Your task to perform on an android device: Clear the shopping cart on bestbuy. Add macbook air to the cart on bestbuy, then select checkout. Image 0: 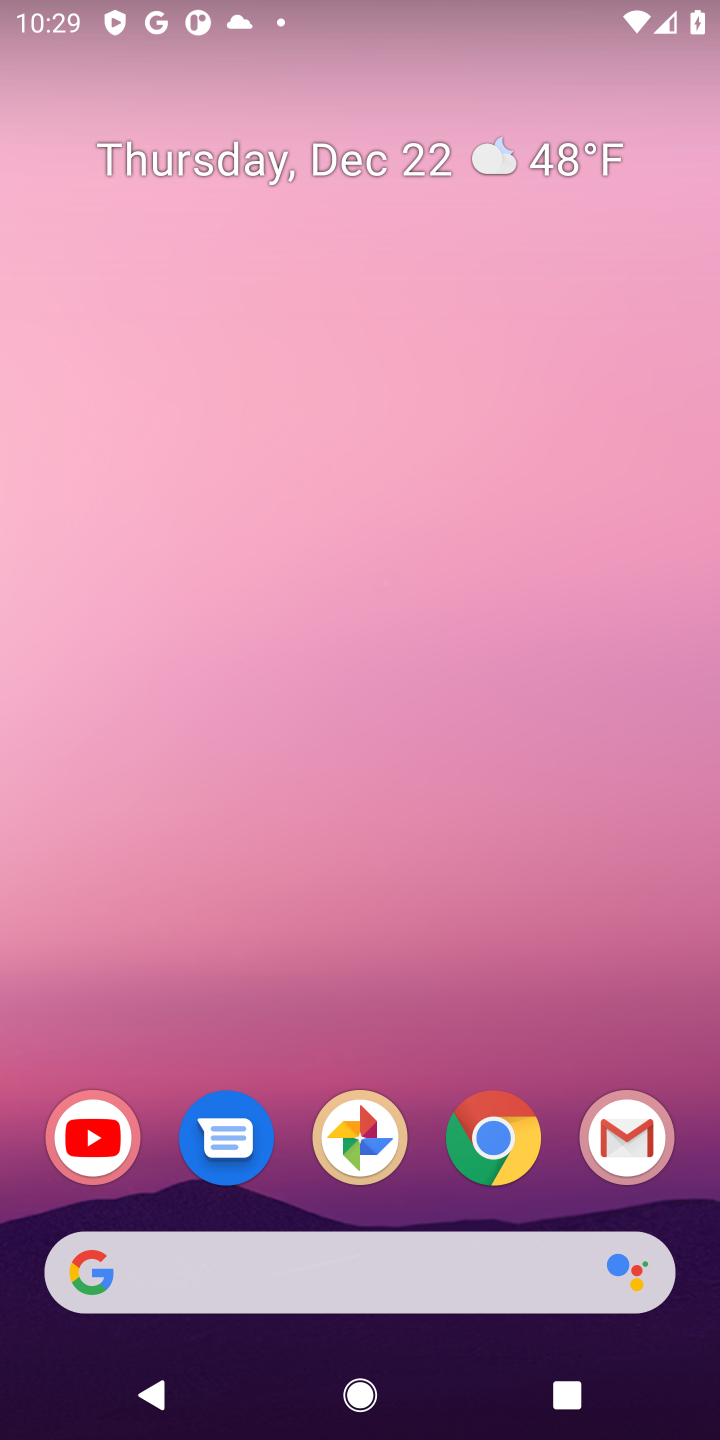
Step 0: click (477, 1119)
Your task to perform on an android device: Clear the shopping cart on bestbuy. Add macbook air to the cart on bestbuy, then select checkout. Image 1: 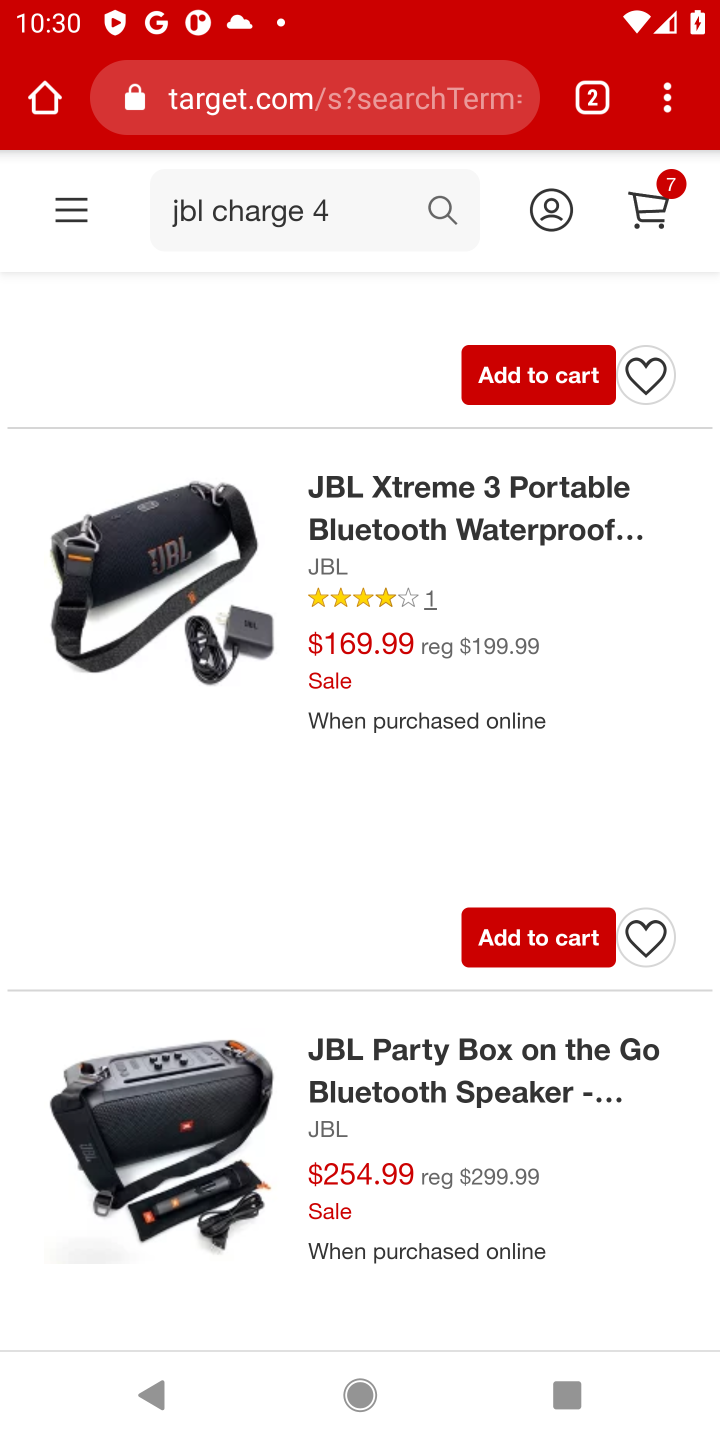
Step 1: click (329, 74)
Your task to perform on an android device: Clear the shopping cart on bestbuy. Add macbook air to the cart on bestbuy, then select checkout. Image 2: 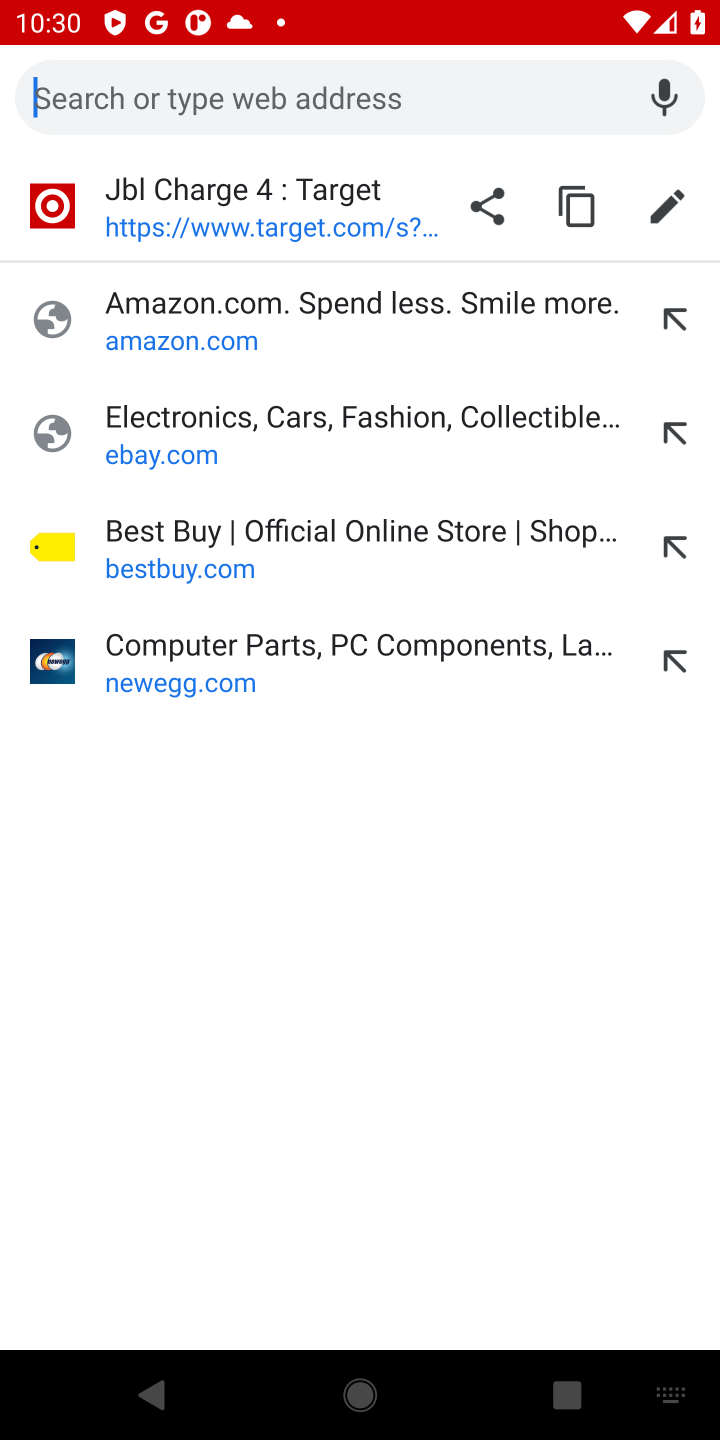
Step 2: press enter
Your task to perform on an android device: Clear the shopping cart on bestbuy. Add macbook air to the cart on bestbuy, then select checkout. Image 3: 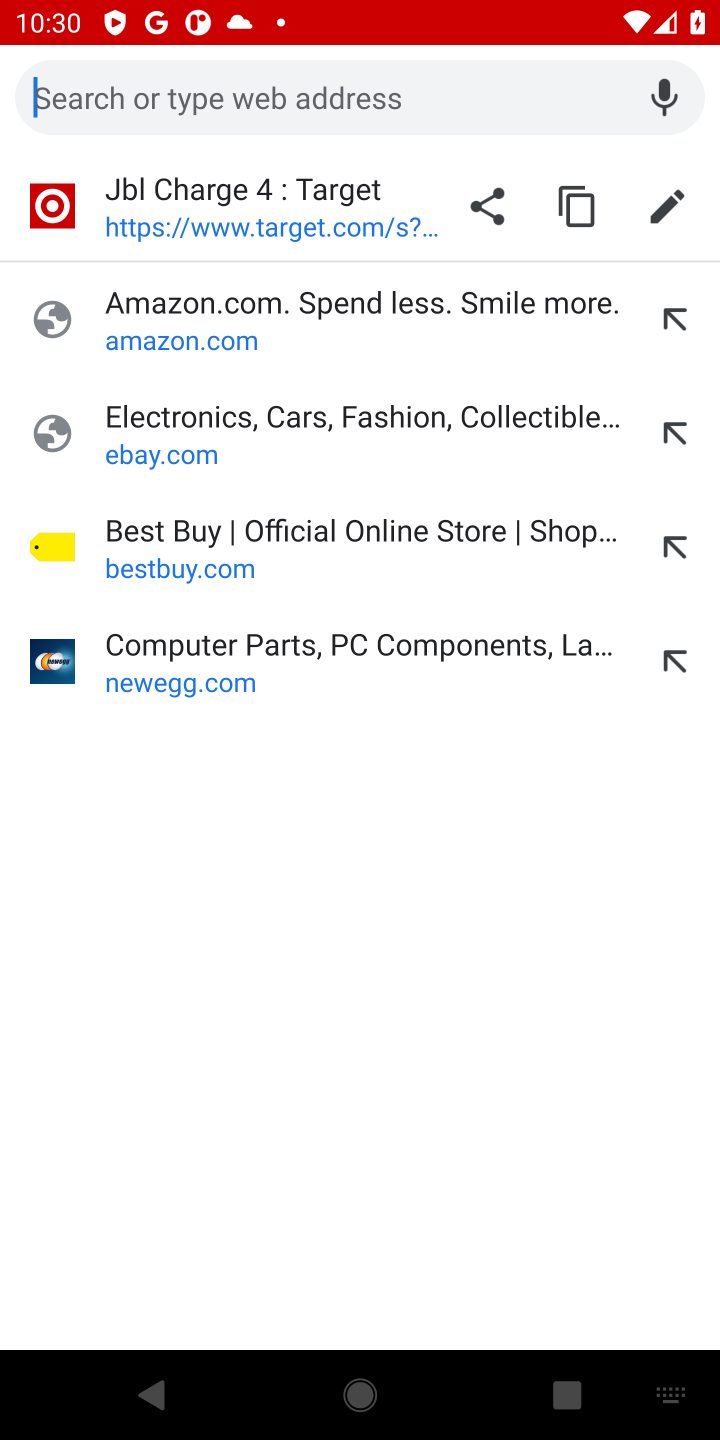
Step 3: type "bestbuy"
Your task to perform on an android device: Clear the shopping cart on bestbuy. Add macbook air to the cart on bestbuy, then select checkout. Image 4: 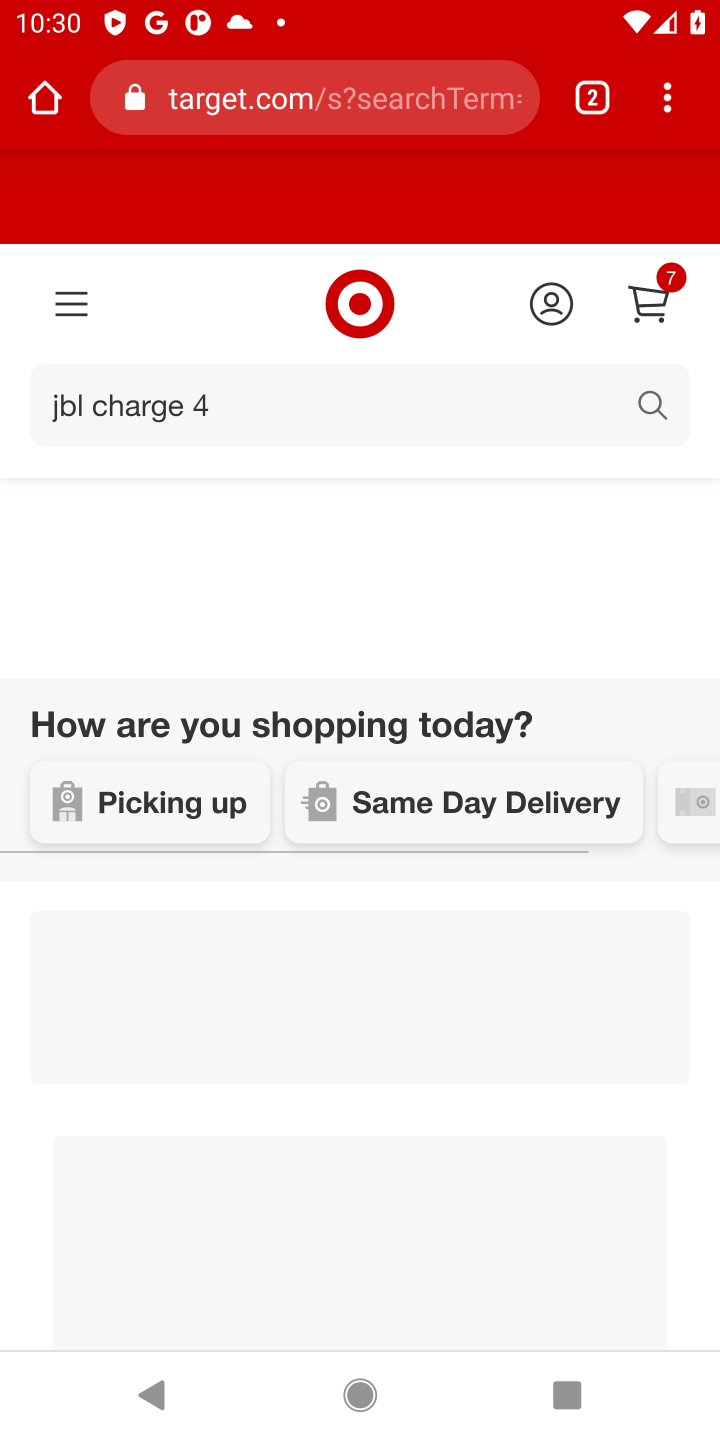
Step 4: click (47, 97)
Your task to perform on an android device: Clear the shopping cart on bestbuy. Add macbook air to the cart on bestbuy, then select checkout. Image 5: 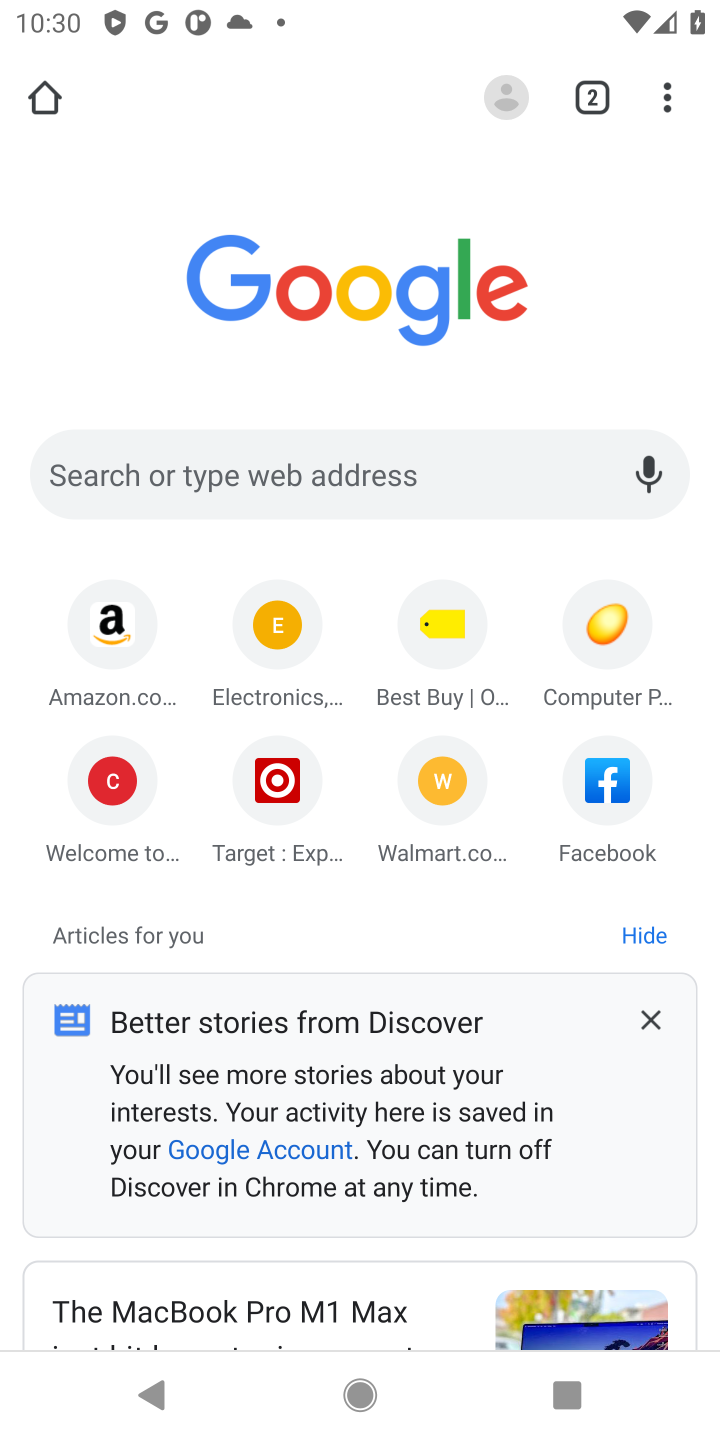
Step 5: click (322, 478)
Your task to perform on an android device: Clear the shopping cart on bestbuy. Add macbook air to the cart on bestbuy, then select checkout. Image 6: 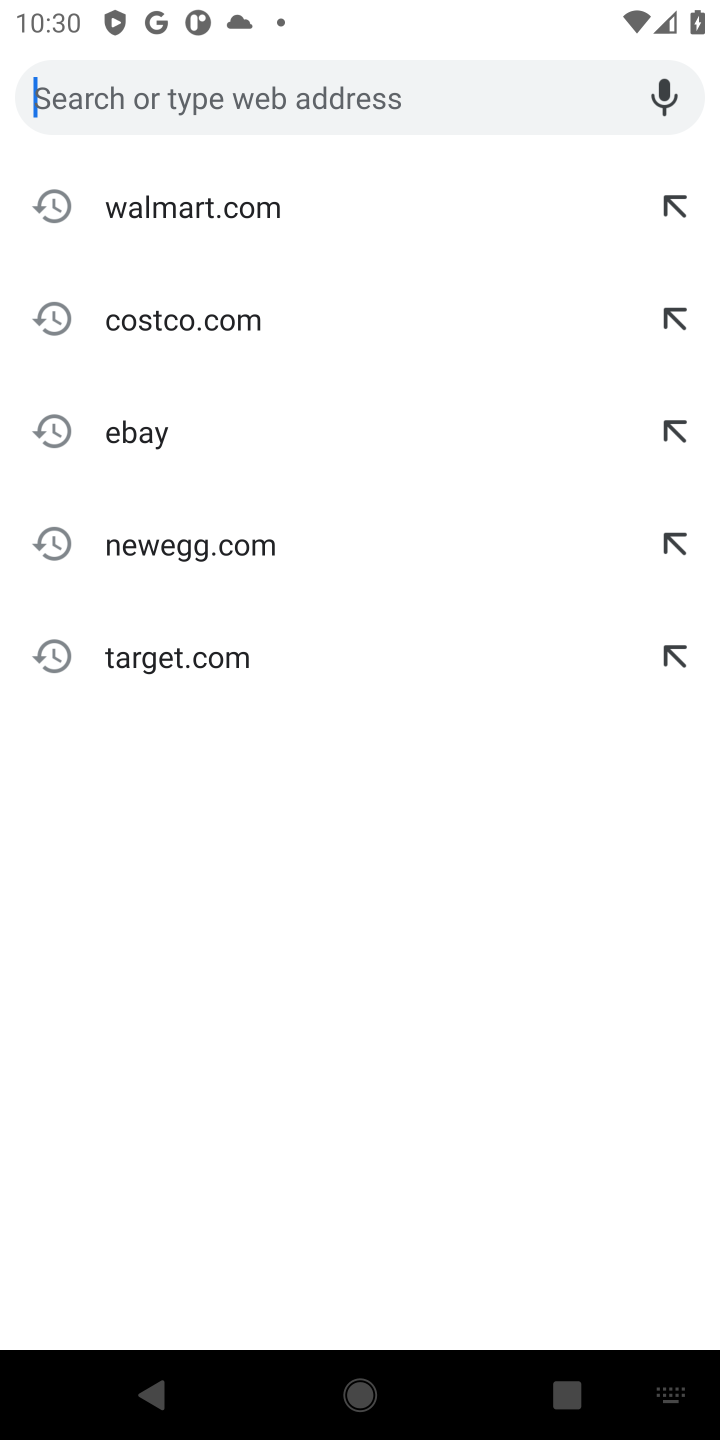
Step 6: press enter
Your task to perform on an android device: Clear the shopping cart on bestbuy. Add macbook air to the cart on bestbuy, then select checkout. Image 7: 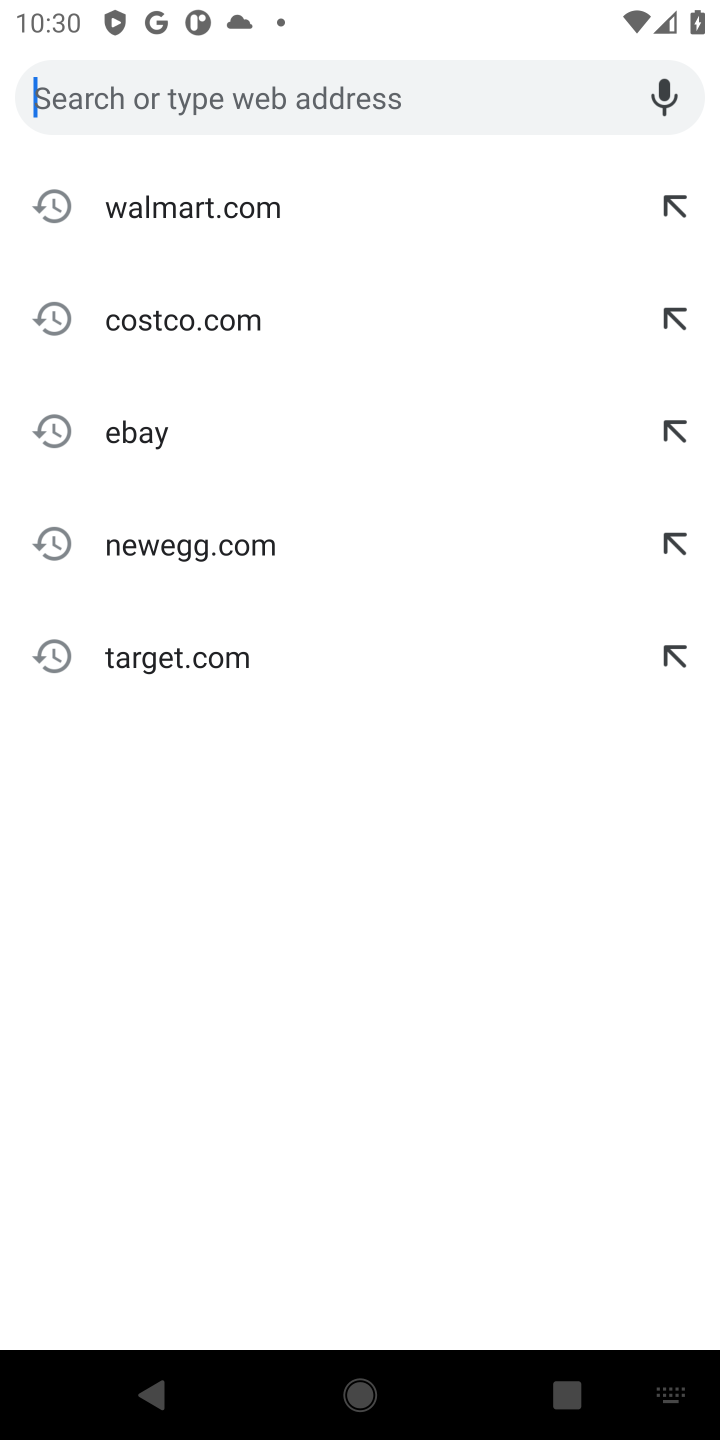
Step 7: type "bestbuy"
Your task to perform on an android device: Clear the shopping cart on bestbuy. Add macbook air to the cart on bestbuy, then select checkout. Image 8: 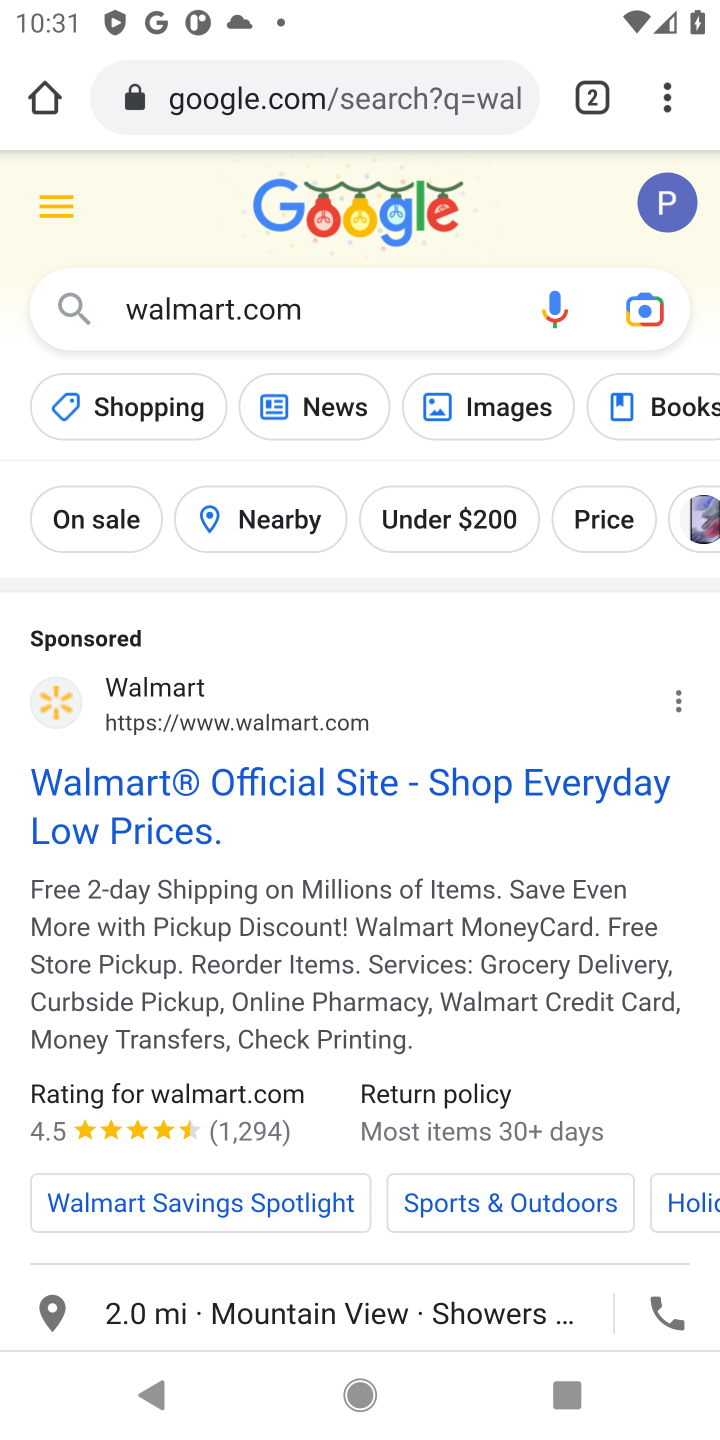
Step 8: click (237, 90)
Your task to perform on an android device: Clear the shopping cart on bestbuy. Add macbook air to the cart on bestbuy, then select checkout. Image 9: 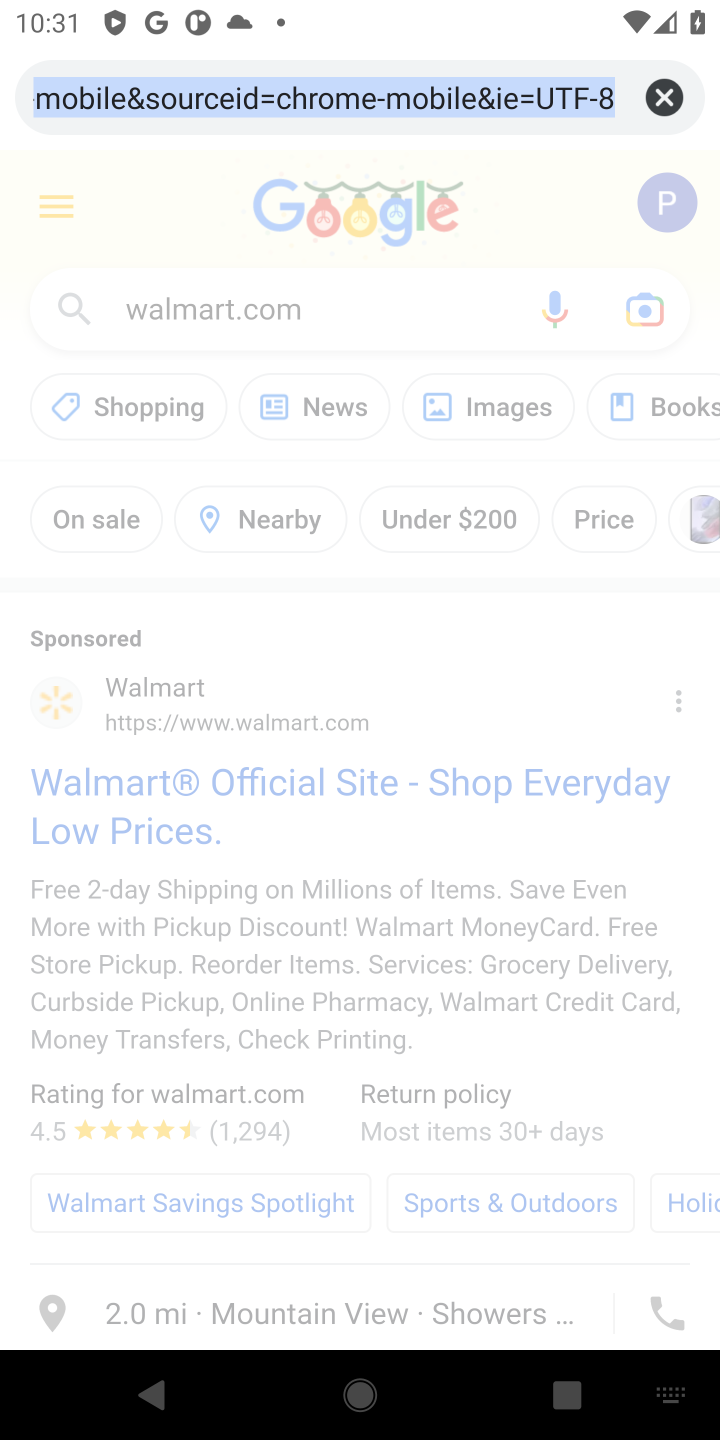
Step 9: press enter
Your task to perform on an android device: Clear the shopping cart on bestbuy. Add macbook air to the cart on bestbuy, then select checkout. Image 10: 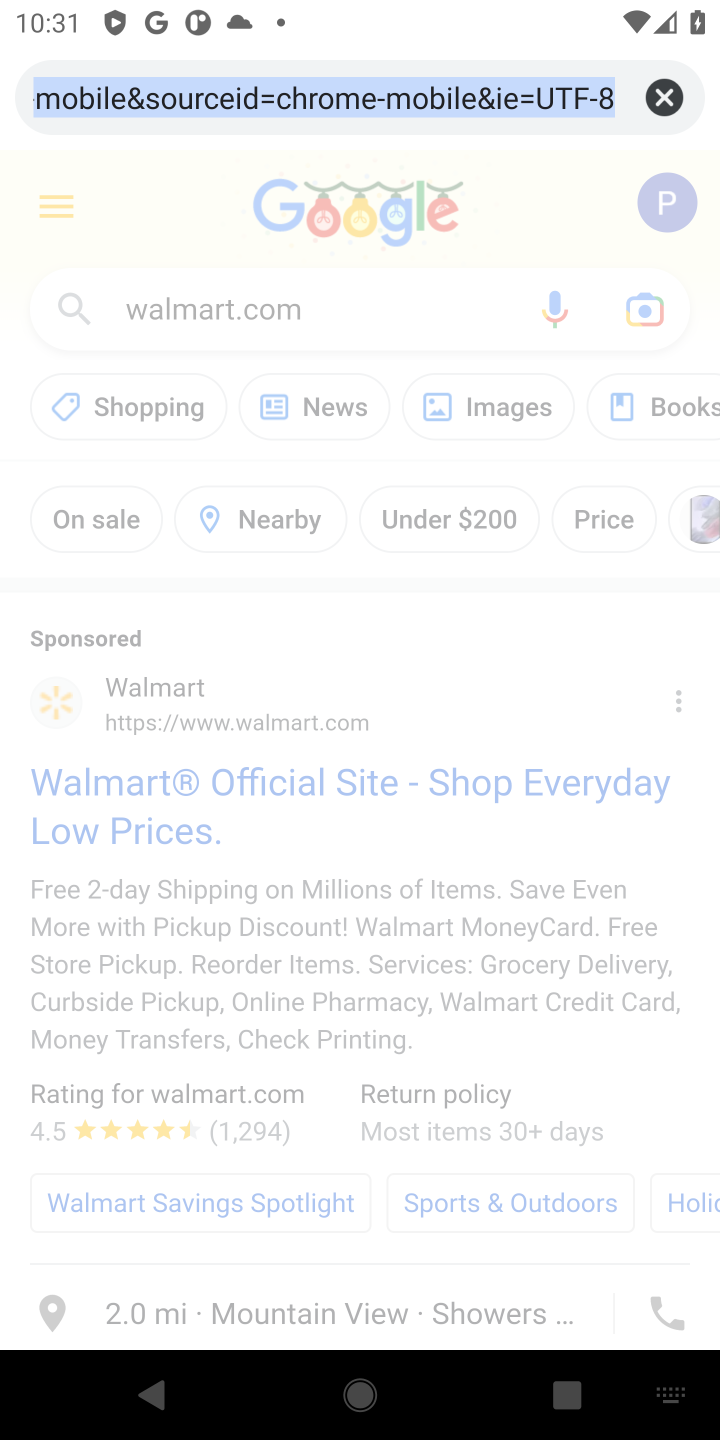
Step 10: type "bestbuy"
Your task to perform on an android device: Clear the shopping cart on bestbuy. Add macbook air to the cart on bestbuy, then select checkout. Image 11: 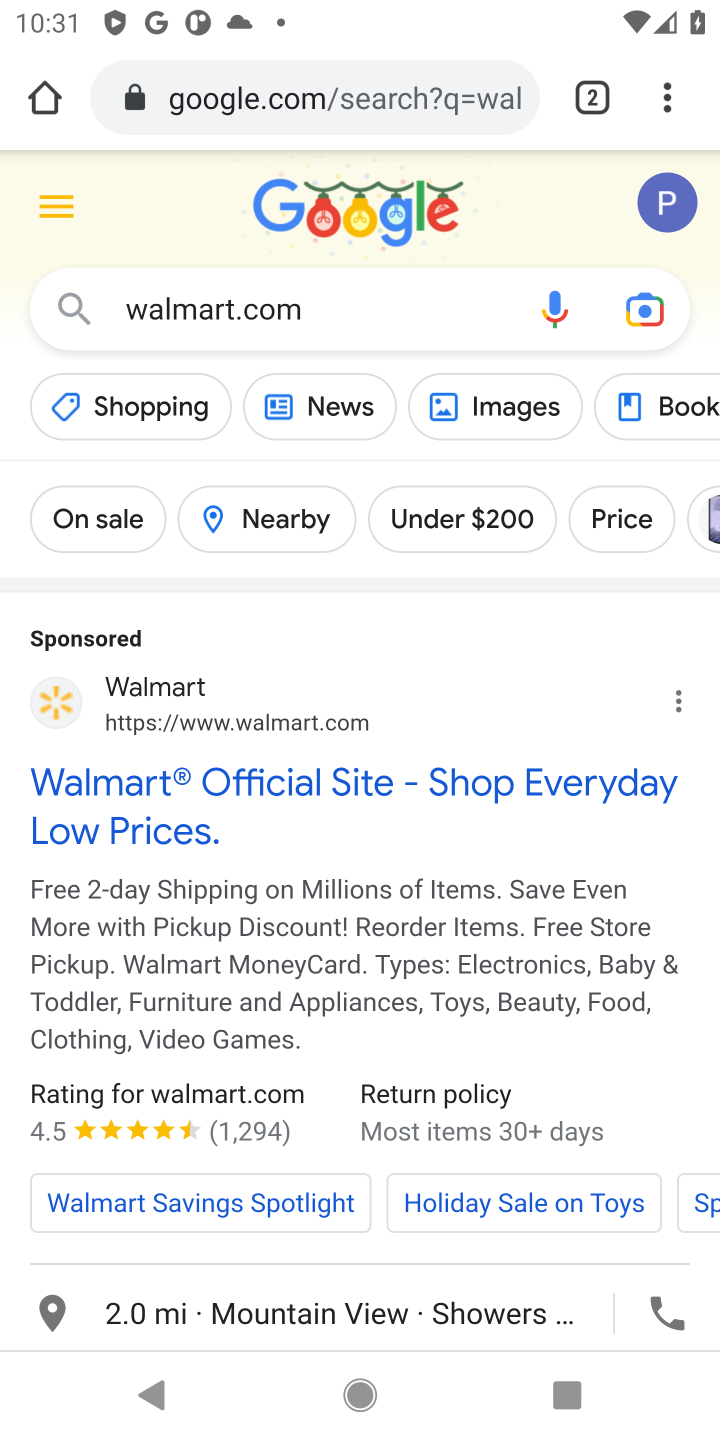
Step 11: click (46, 84)
Your task to perform on an android device: Clear the shopping cart on bestbuy. Add macbook air to the cart on bestbuy, then select checkout. Image 12: 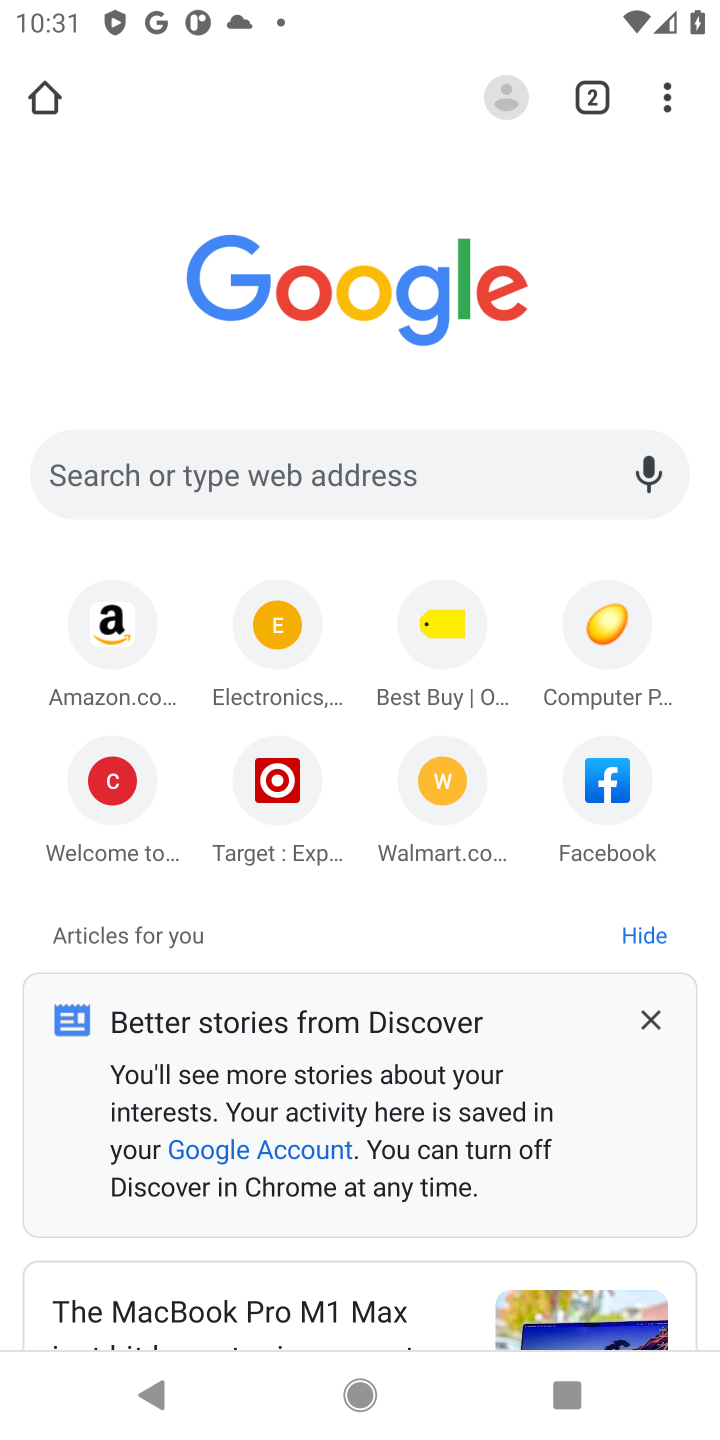
Step 12: click (453, 606)
Your task to perform on an android device: Clear the shopping cart on bestbuy. Add macbook air to the cart on bestbuy, then select checkout. Image 13: 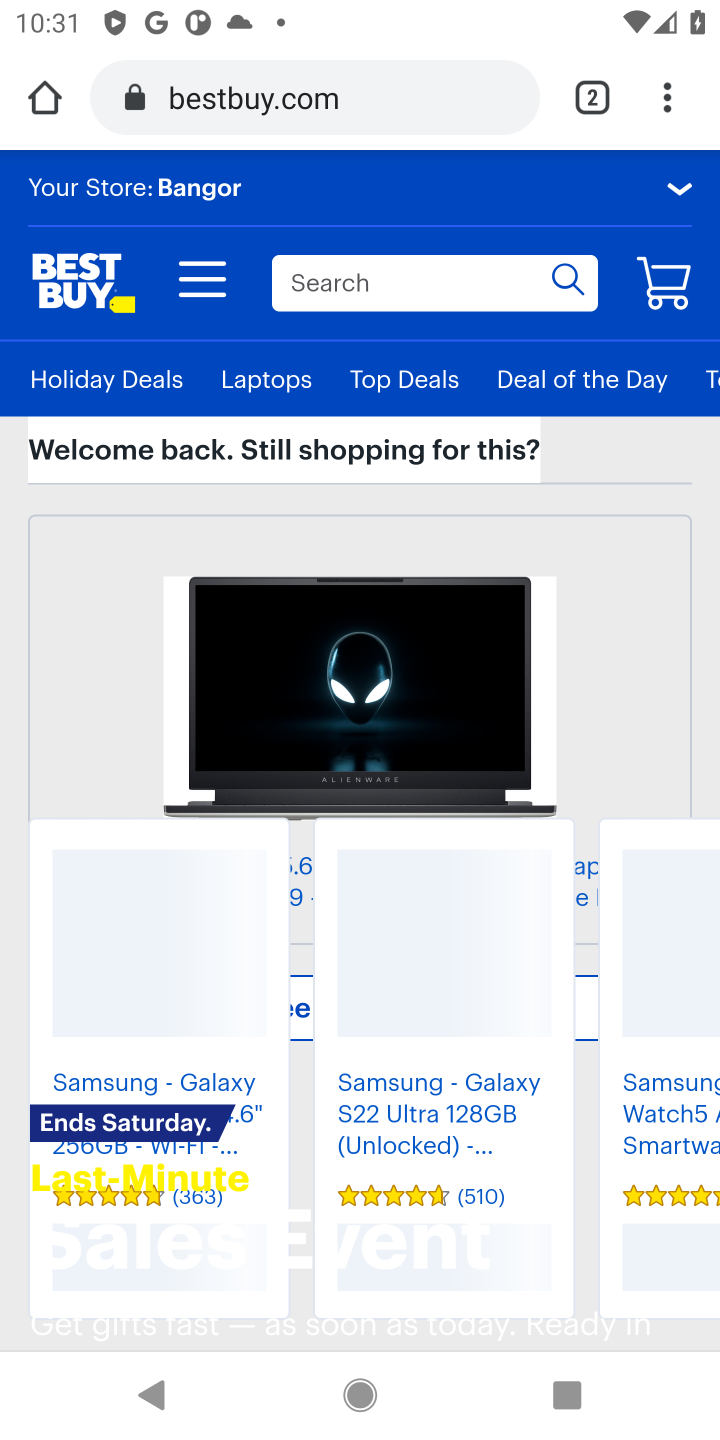
Step 13: click (674, 286)
Your task to perform on an android device: Clear the shopping cart on bestbuy. Add macbook air to the cart on bestbuy, then select checkout. Image 14: 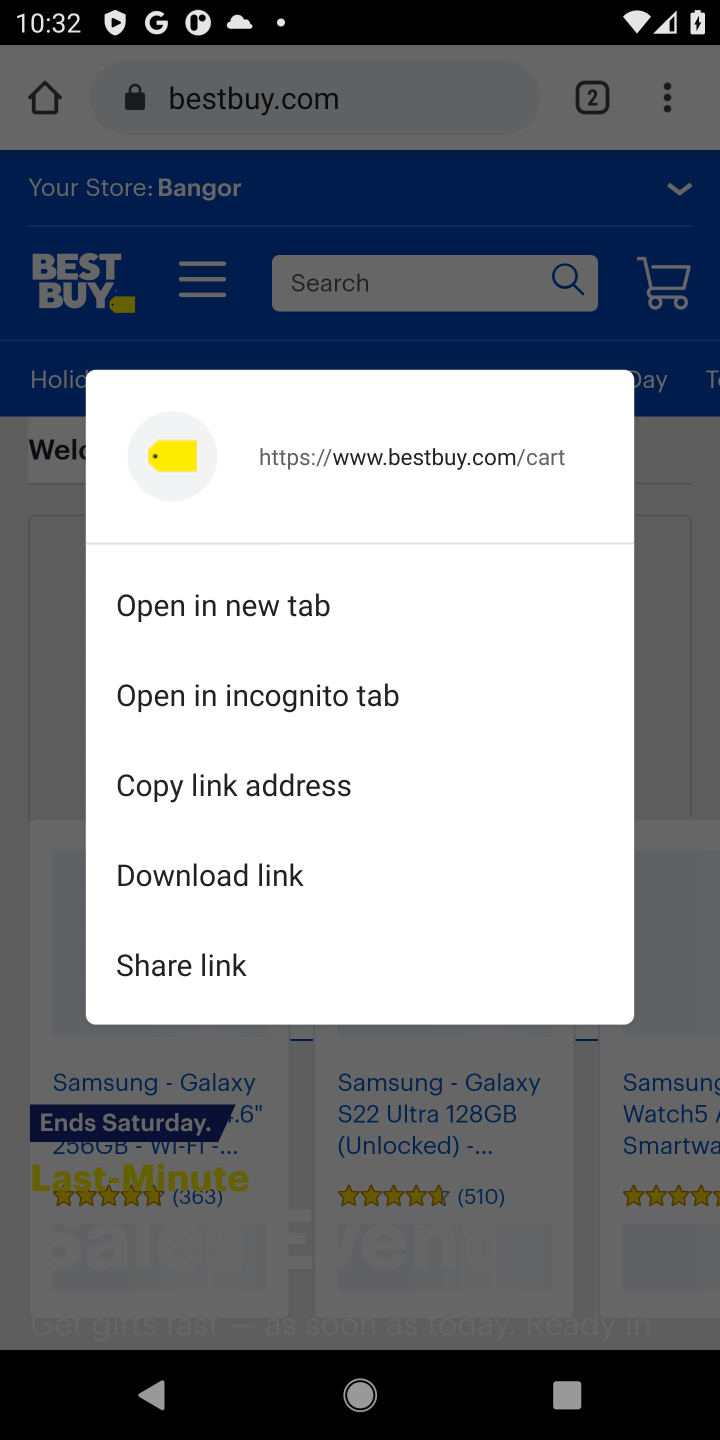
Step 14: click (652, 275)
Your task to perform on an android device: Clear the shopping cart on bestbuy. Add macbook air to the cart on bestbuy, then select checkout. Image 15: 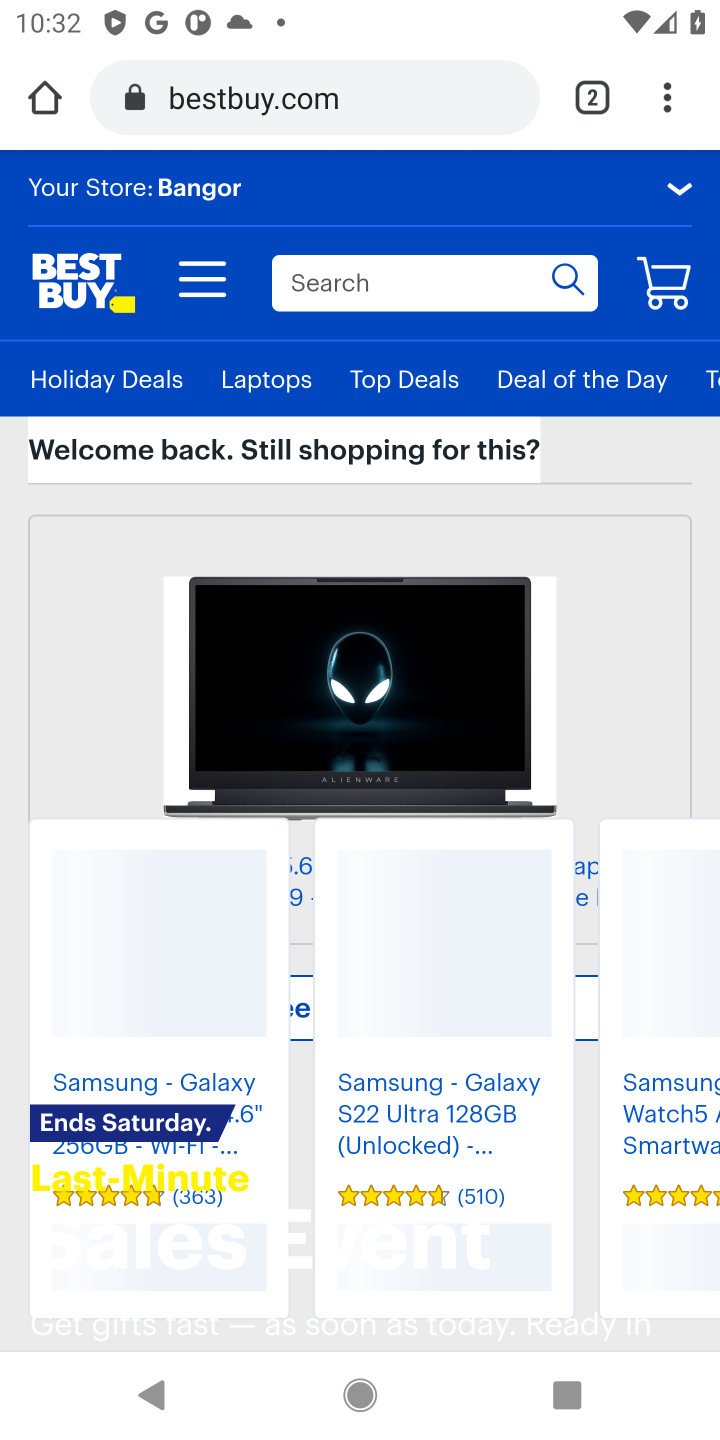
Step 15: click (660, 284)
Your task to perform on an android device: Clear the shopping cart on bestbuy. Add macbook air to the cart on bestbuy, then select checkout. Image 16: 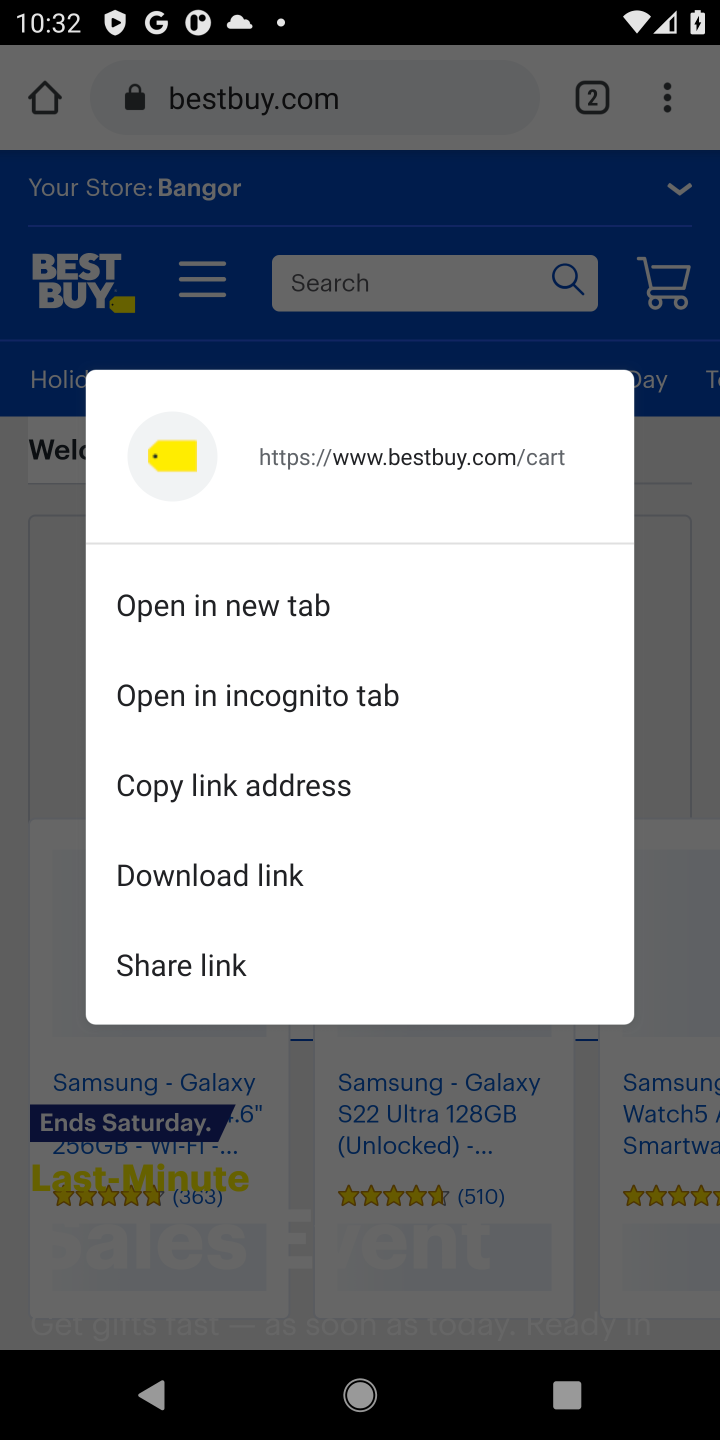
Step 16: click (660, 284)
Your task to perform on an android device: Clear the shopping cart on bestbuy. Add macbook air to the cart on bestbuy, then select checkout. Image 17: 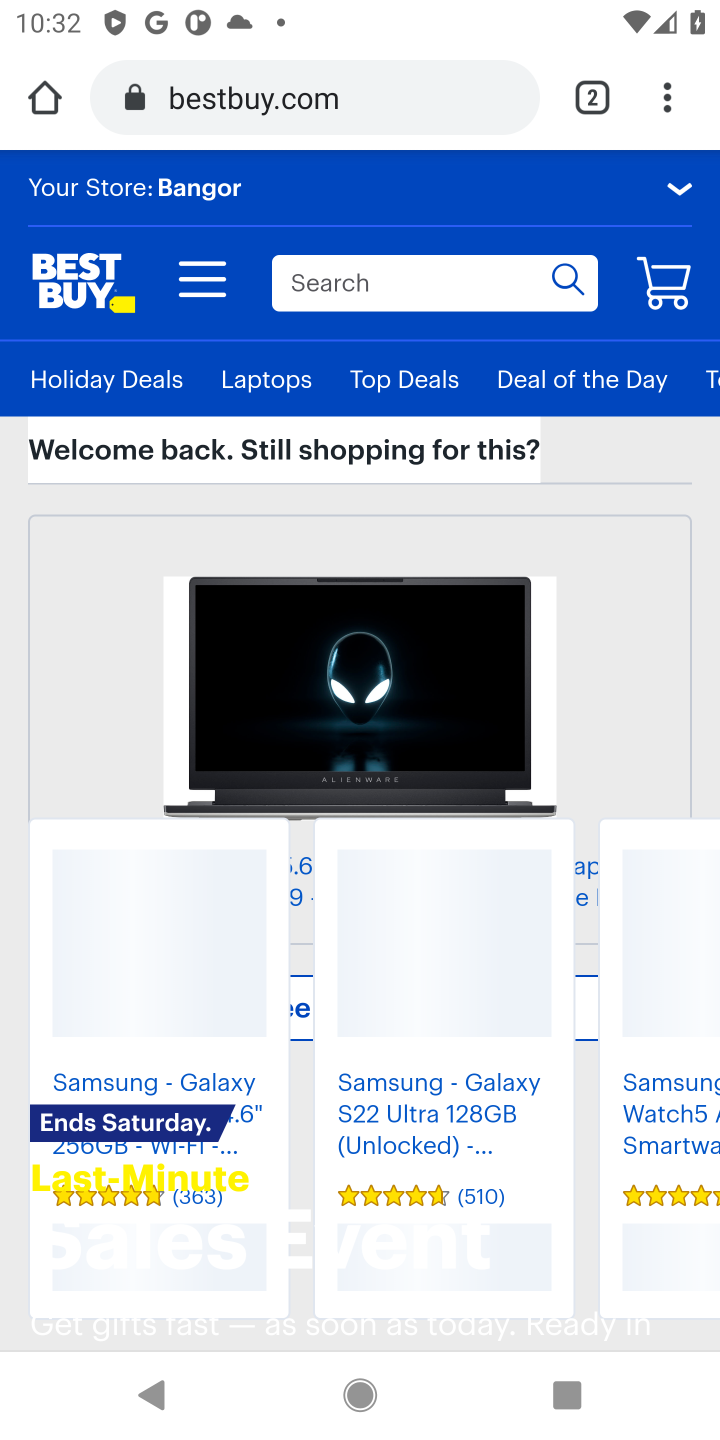
Step 17: click (470, 278)
Your task to perform on an android device: Clear the shopping cart on bestbuy. Add macbook air to the cart on bestbuy, then select checkout. Image 18: 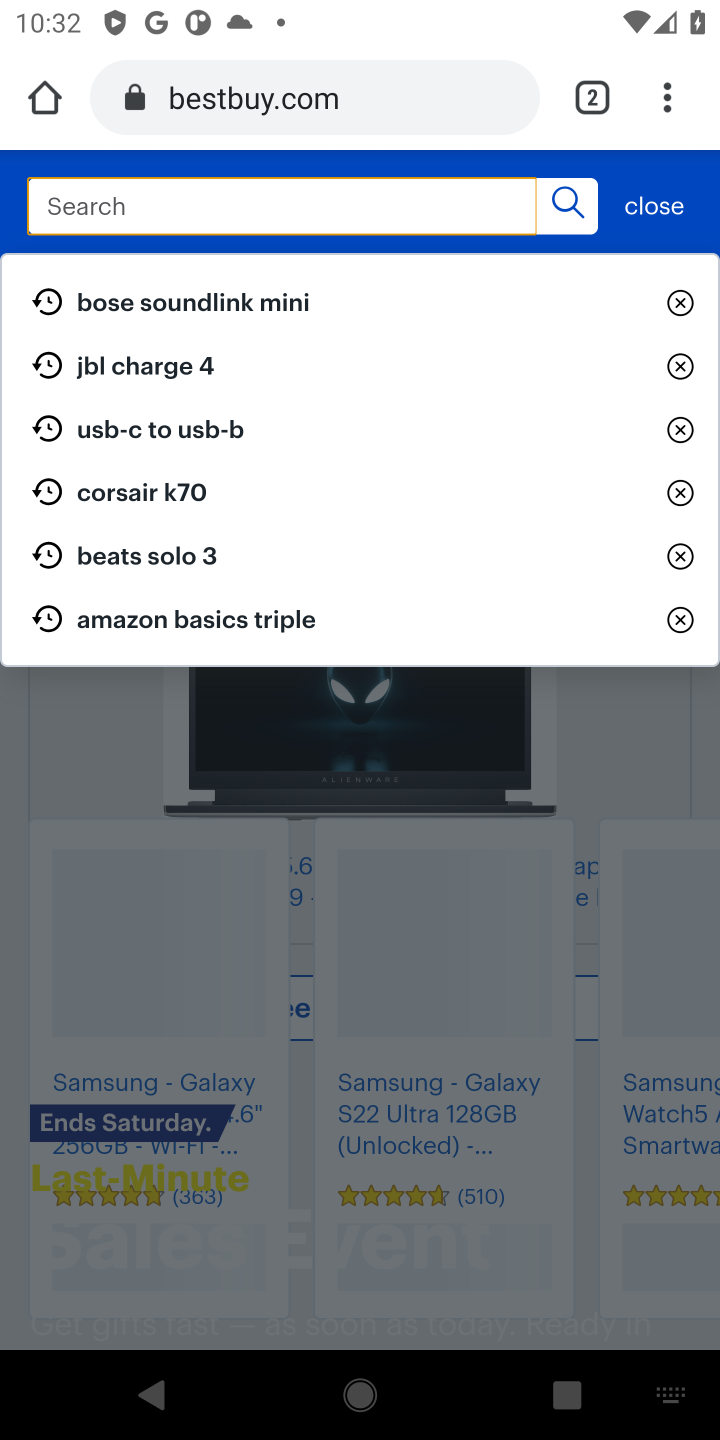
Step 18: press enter
Your task to perform on an android device: Clear the shopping cart on bestbuy. Add macbook air to the cart on bestbuy, then select checkout. Image 19: 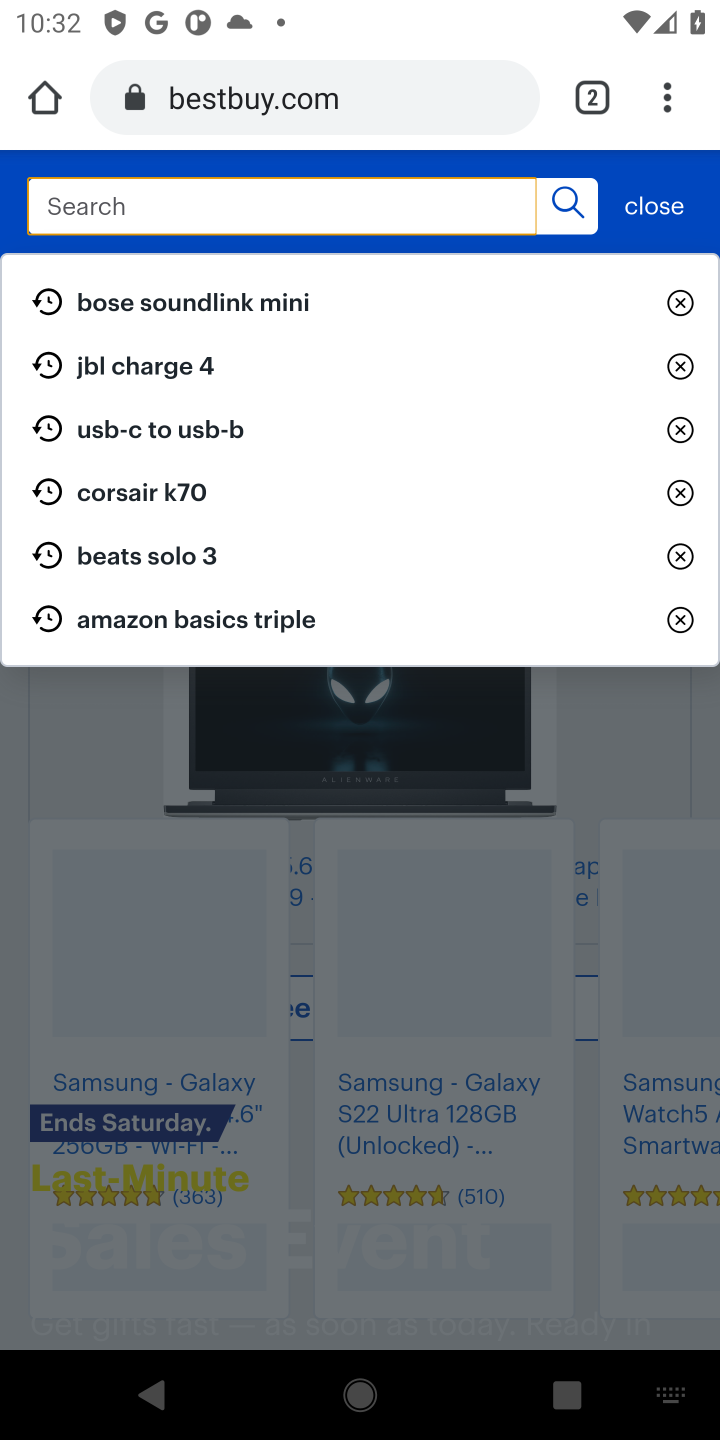
Step 19: type "macbook air "
Your task to perform on an android device: Clear the shopping cart on bestbuy. Add macbook air to the cart on bestbuy, then select checkout. Image 20: 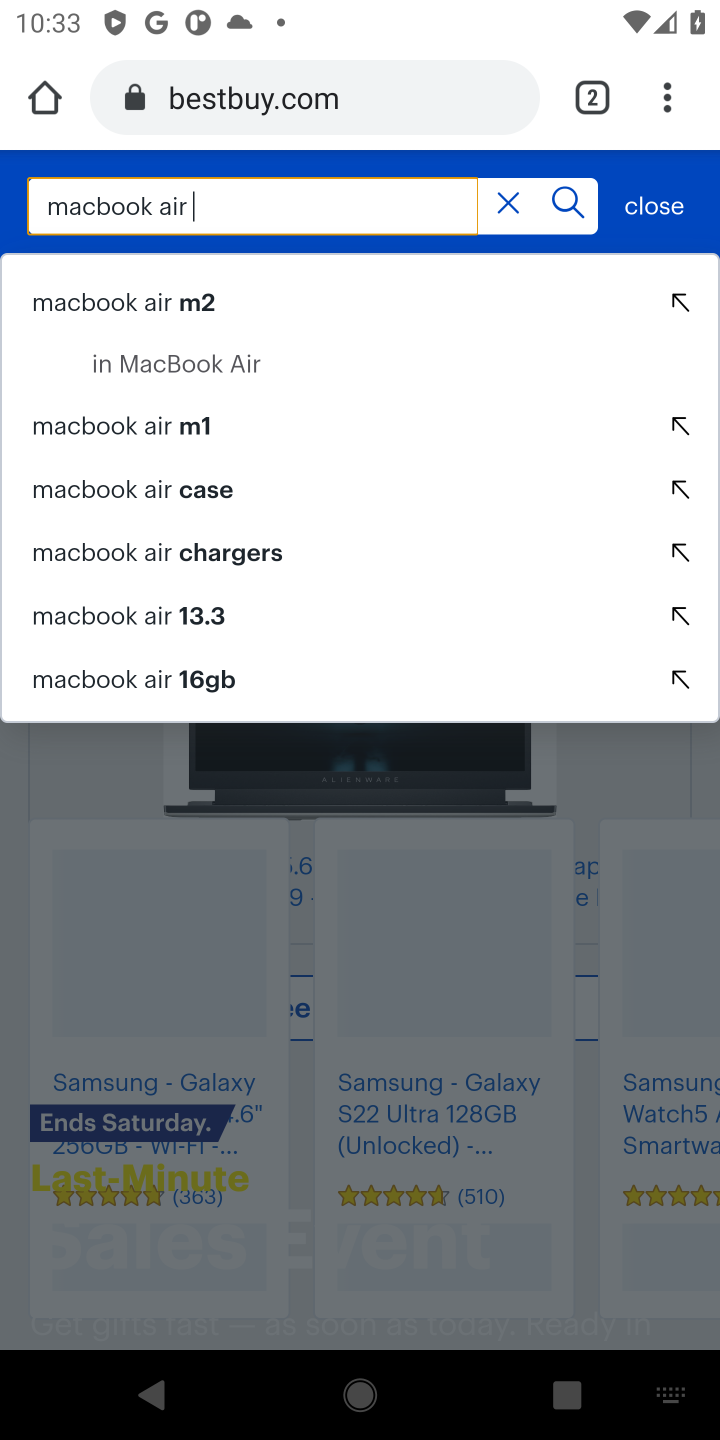
Step 20: click (573, 197)
Your task to perform on an android device: Clear the shopping cart on bestbuy. Add macbook air to the cart on bestbuy, then select checkout. Image 21: 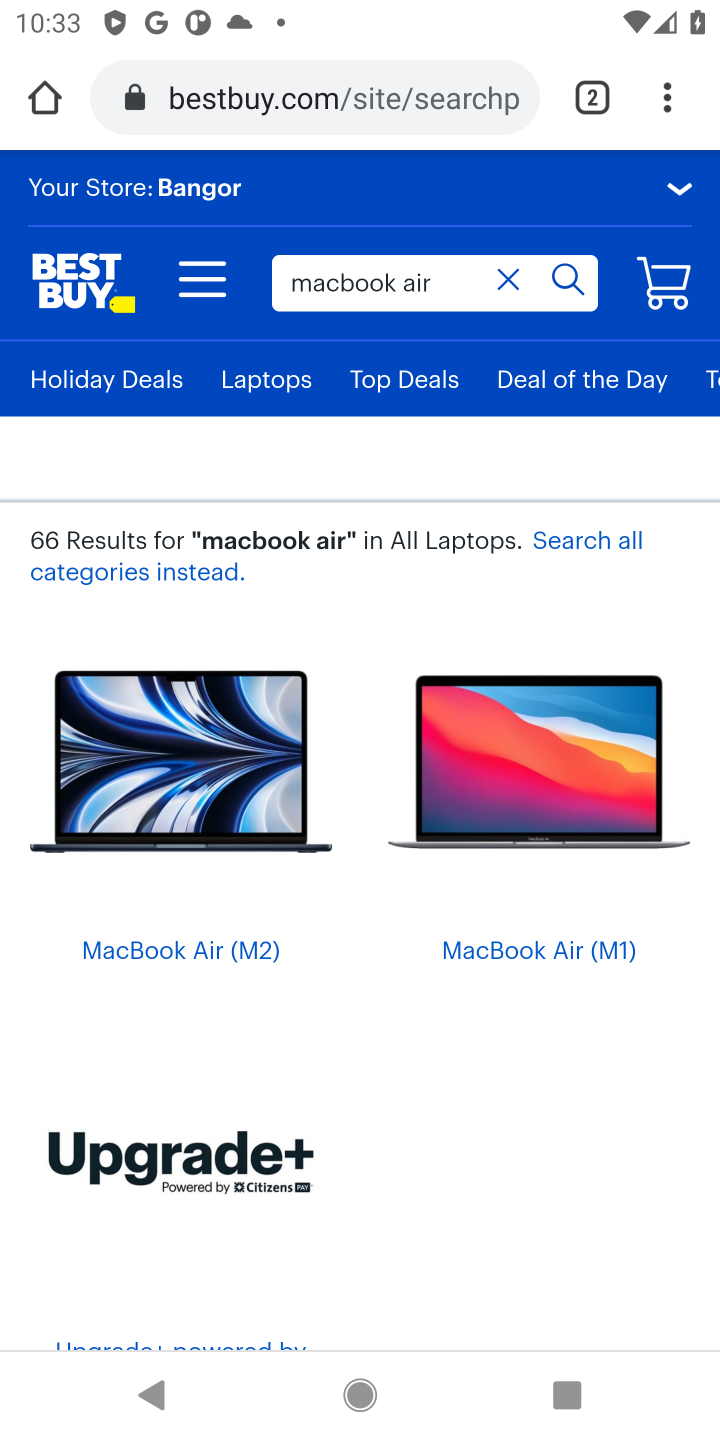
Step 21: click (551, 720)
Your task to perform on an android device: Clear the shopping cart on bestbuy. Add macbook air to the cart on bestbuy, then select checkout. Image 22: 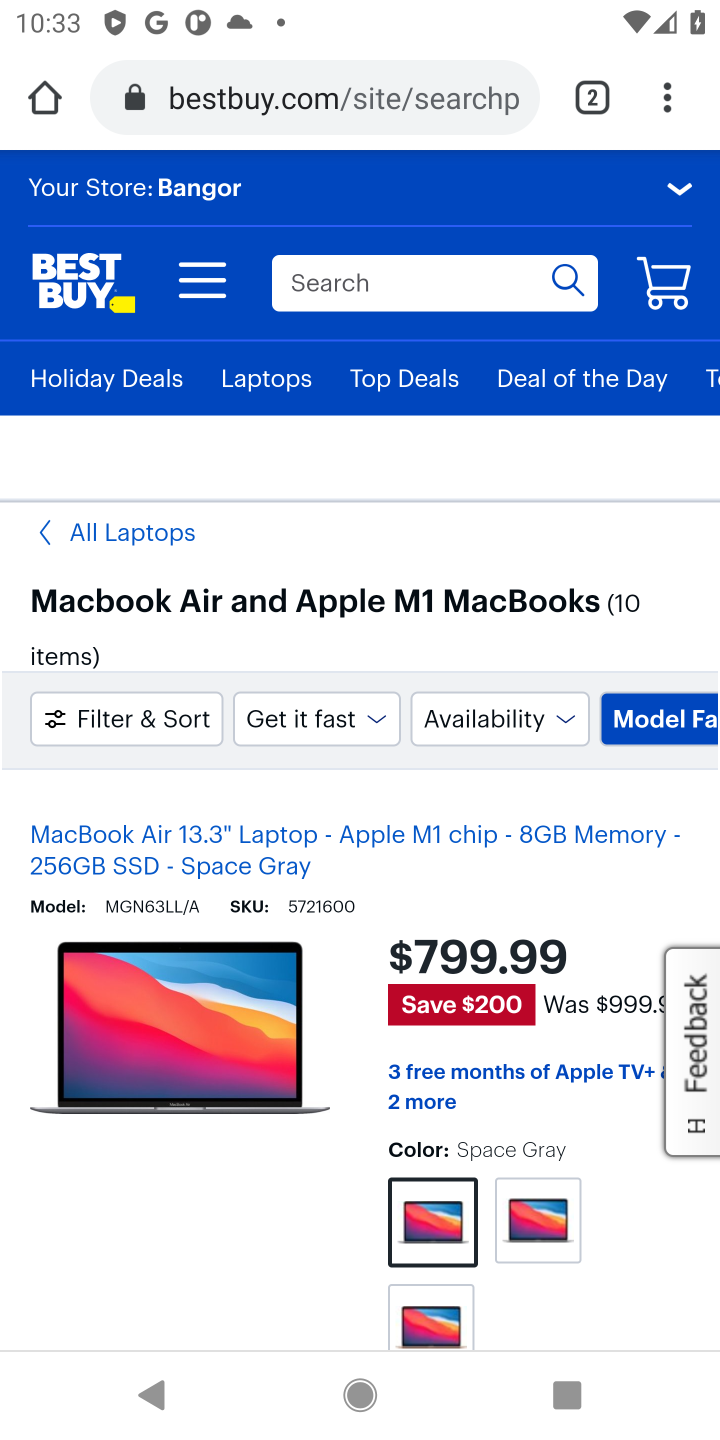
Step 22: click (192, 1014)
Your task to perform on an android device: Clear the shopping cart on bestbuy. Add macbook air to the cart on bestbuy, then select checkout. Image 23: 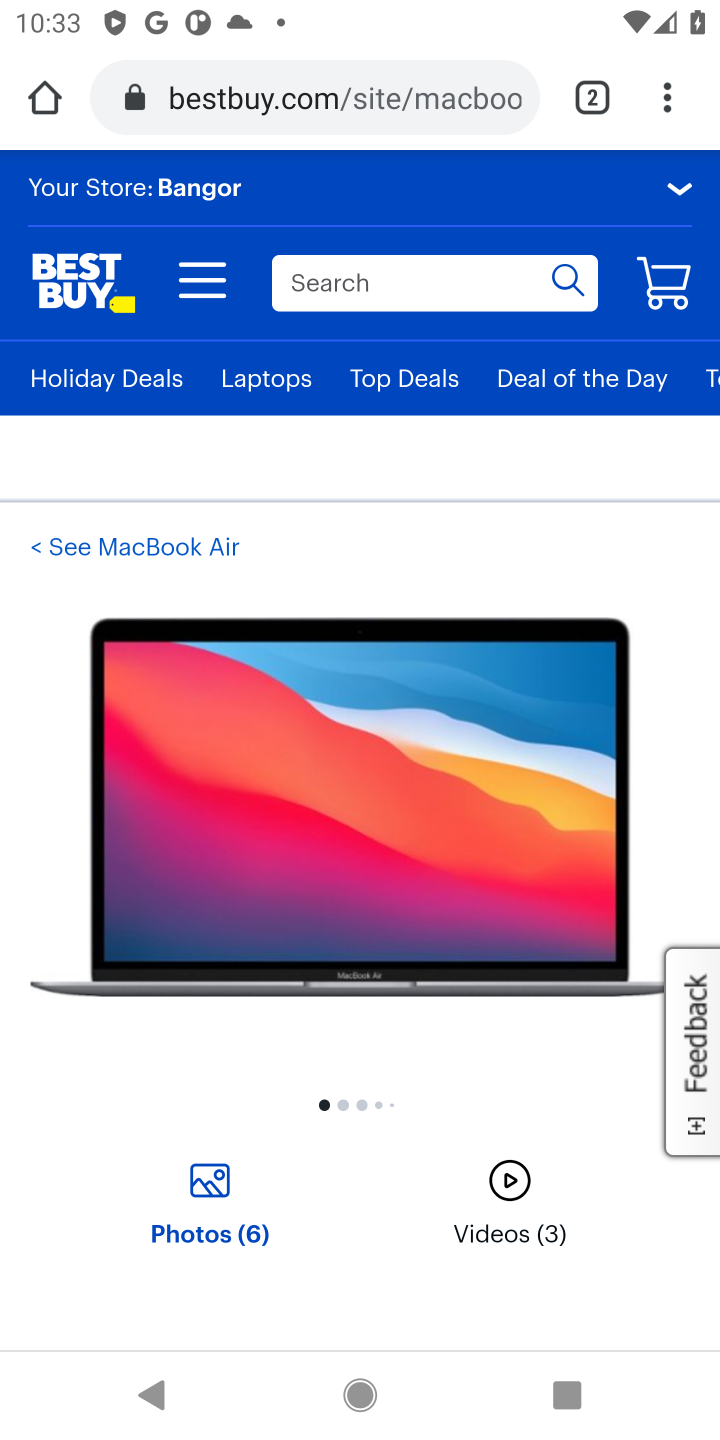
Step 23: drag from (491, 1041) to (411, 387)
Your task to perform on an android device: Clear the shopping cart on bestbuy. Add macbook air to the cart on bestbuy, then select checkout. Image 24: 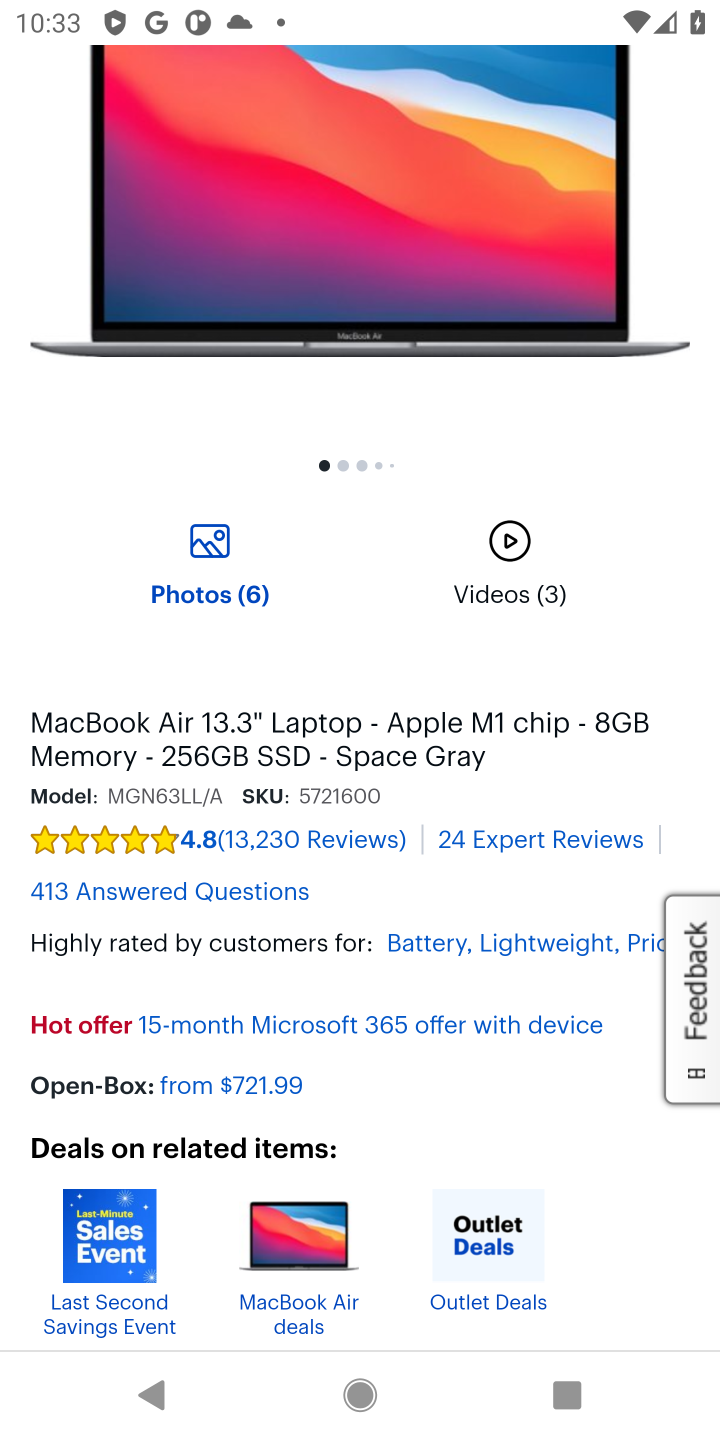
Step 24: drag from (518, 818) to (563, 335)
Your task to perform on an android device: Clear the shopping cart on bestbuy. Add macbook air to the cart on bestbuy, then select checkout. Image 25: 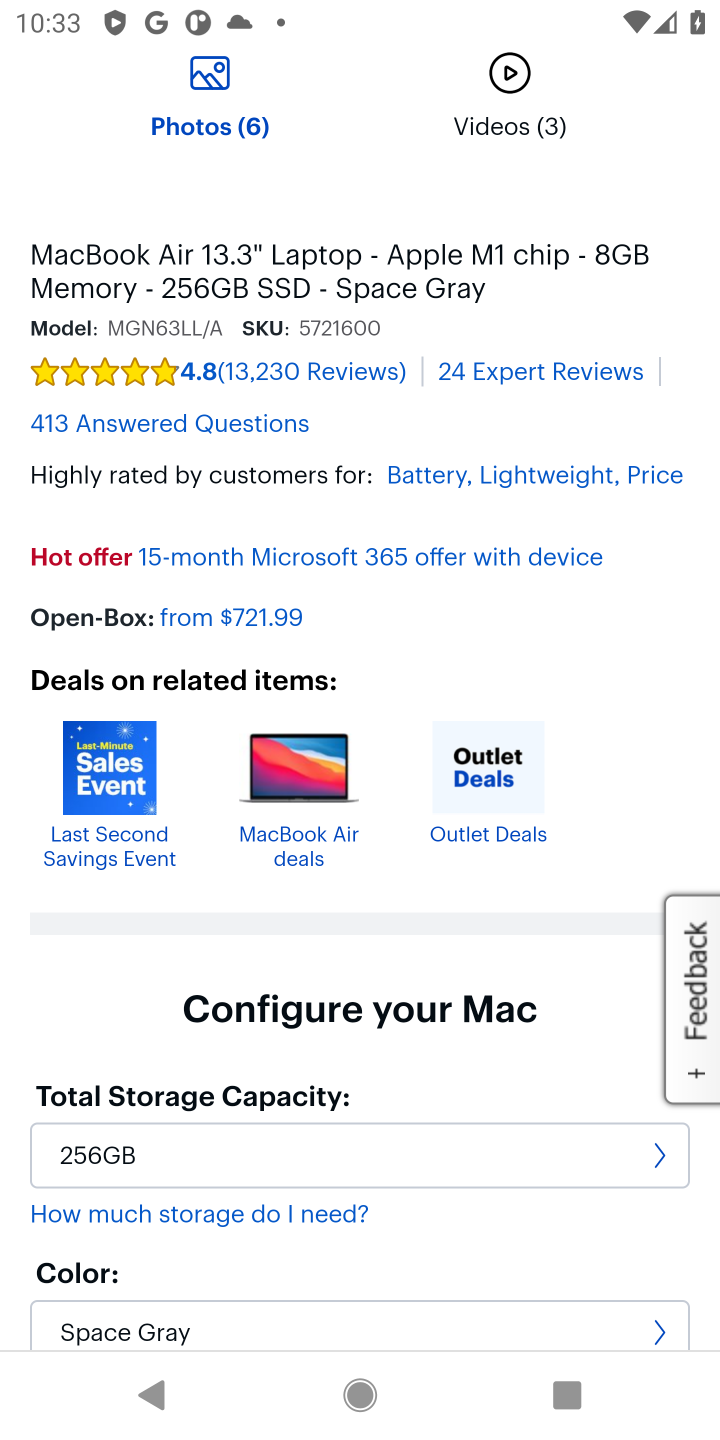
Step 25: drag from (563, 1079) to (511, 499)
Your task to perform on an android device: Clear the shopping cart on bestbuy. Add macbook air to the cart on bestbuy, then select checkout. Image 26: 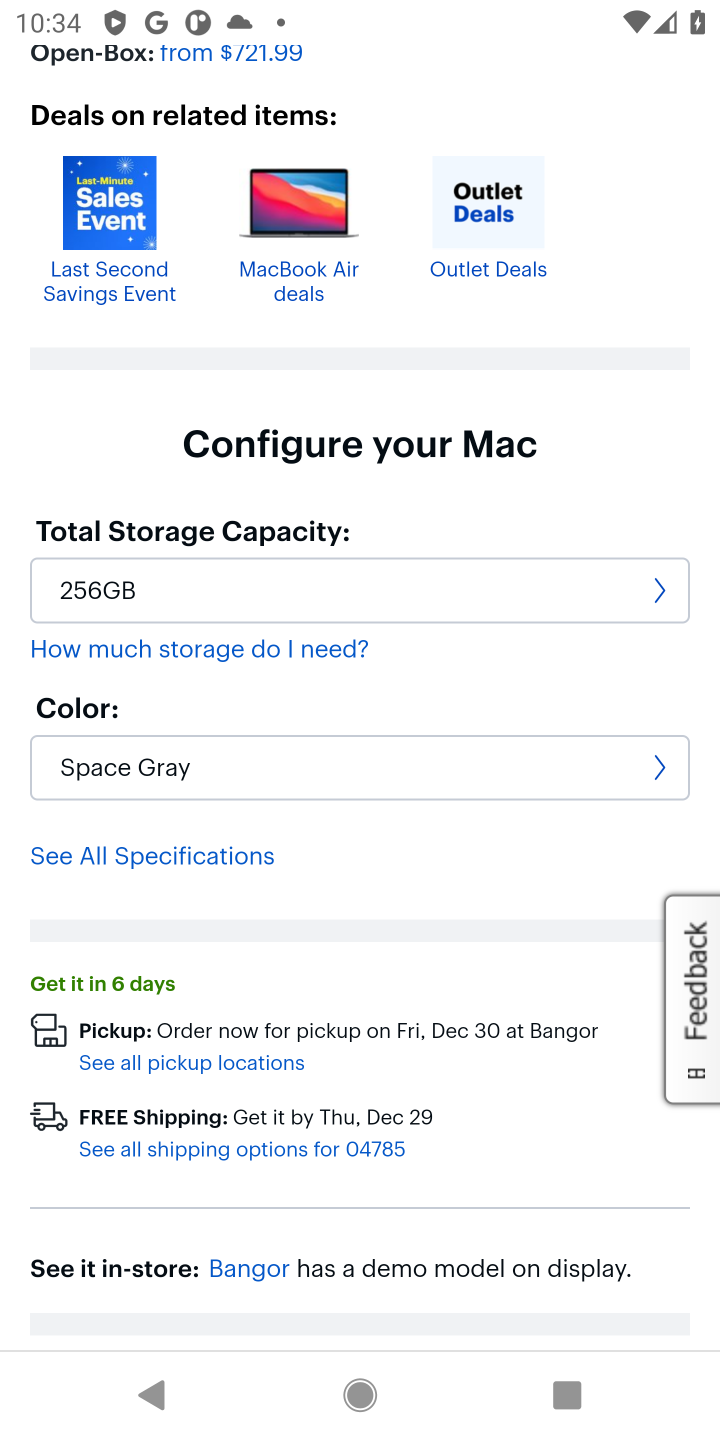
Step 26: drag from (528, 885) to (542, 248)
Your task to perform on an android device: Clear the shopping cart on bestbuy. Add macbook air to the cart on bestbuy, then select checkout. Image 27: 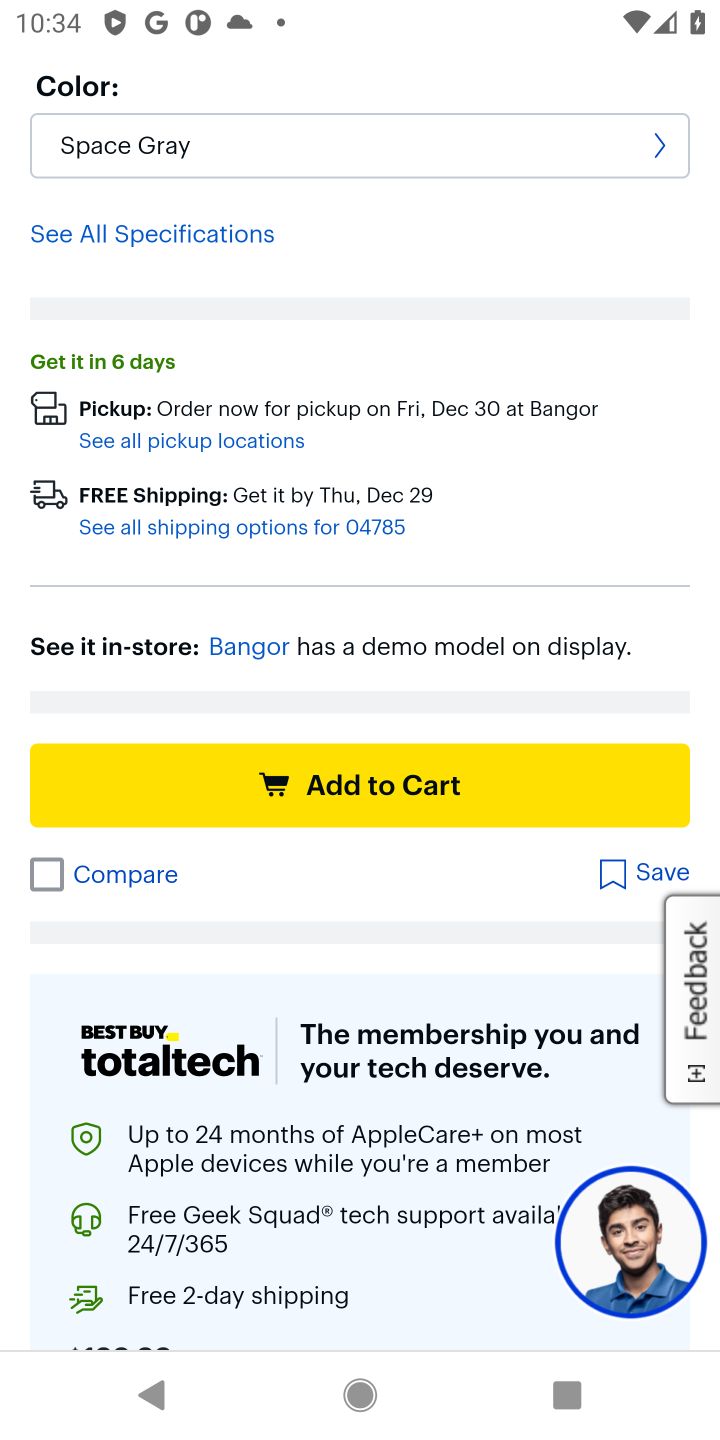
Step 27: click (400, 778)
Your task to perform on an android device: Clear the shopping cart on bestbuy. Add macbook air to the cart on bestbuy, then select checkout. Image 28: 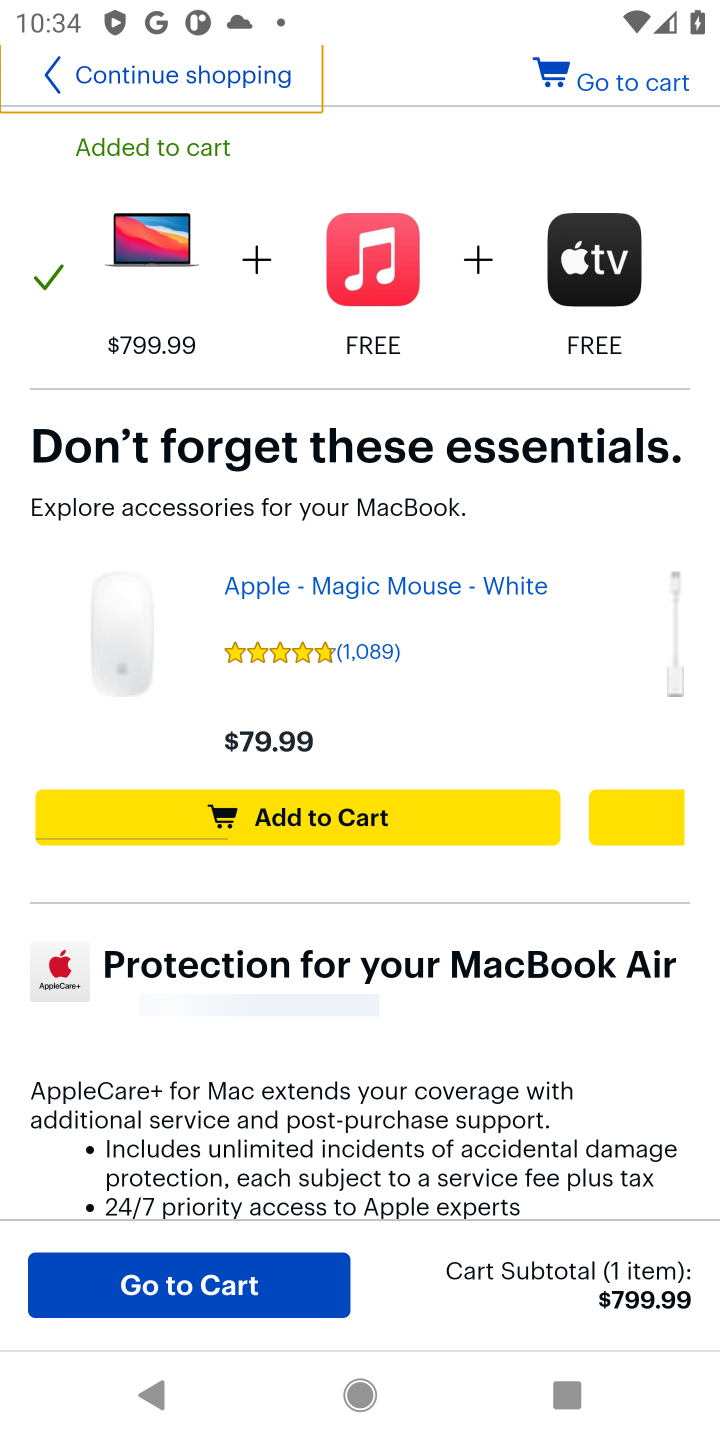
Step 28: click (175, 1279)
Your task to perform on an android device: Clear the shopping cart on bestbuy. Add macbook air to the cart on bestbuy, then select checkout. Image 29: 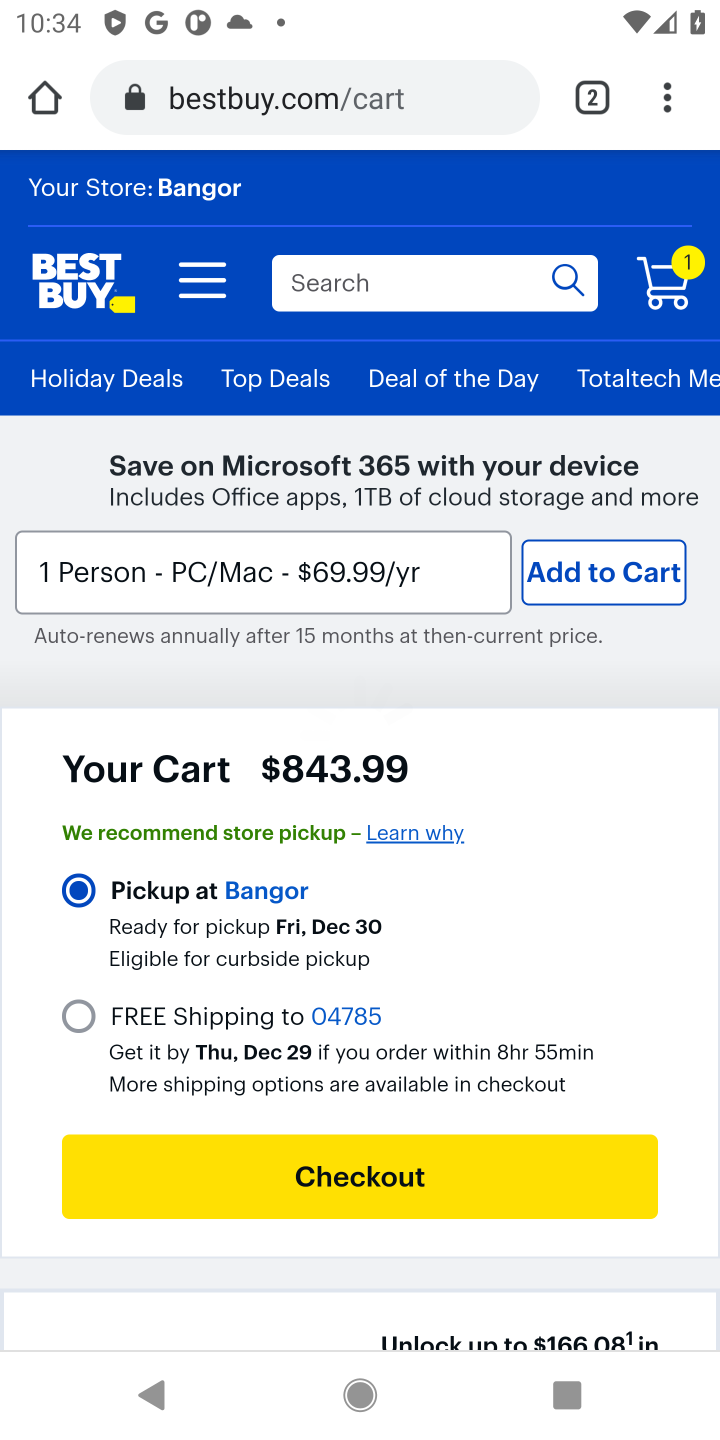
Step 29: click (360, 1170)
Your task to perform on an android device: Clear the shopping cart on bestbuy. Add macbook air to the cart on bestbuy, then select checkout. Image 30: 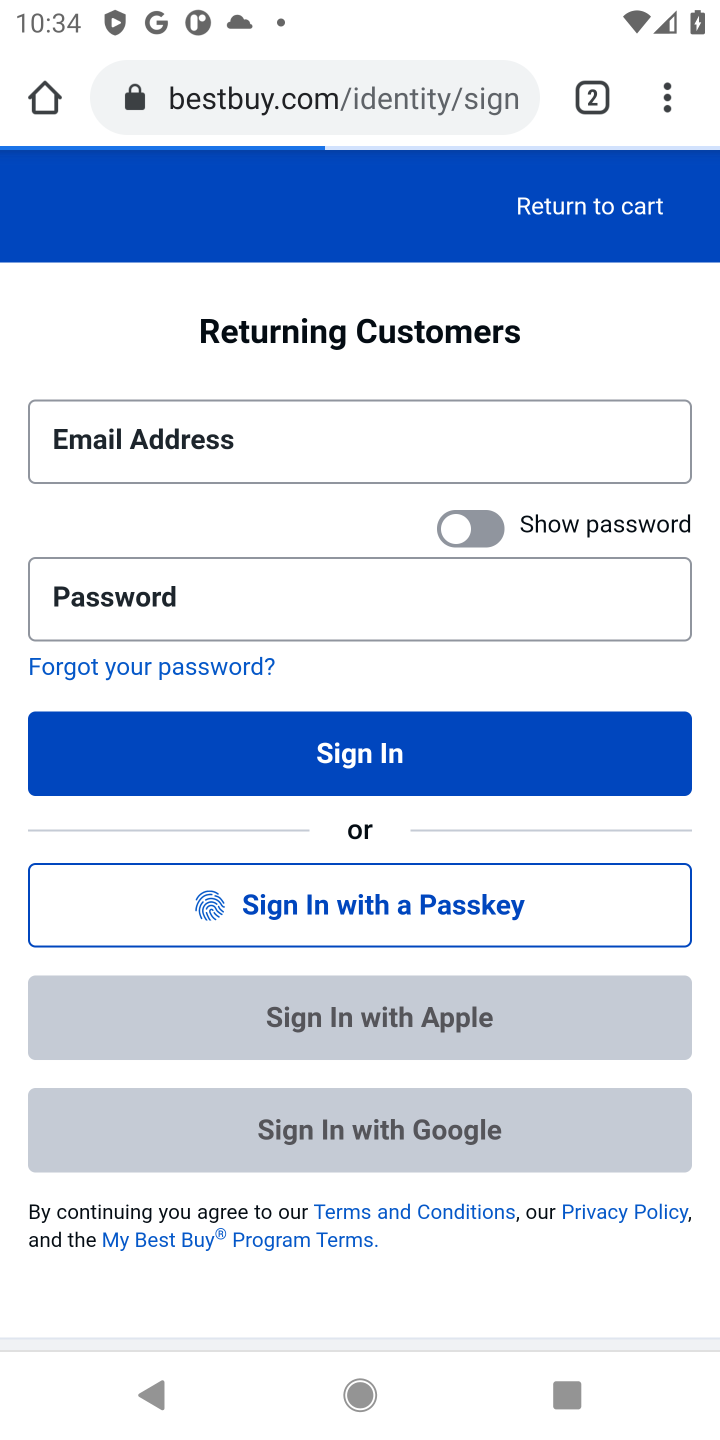
Step 30: task complete